Your task to perform on an android device: Go to notification settings Image 0: 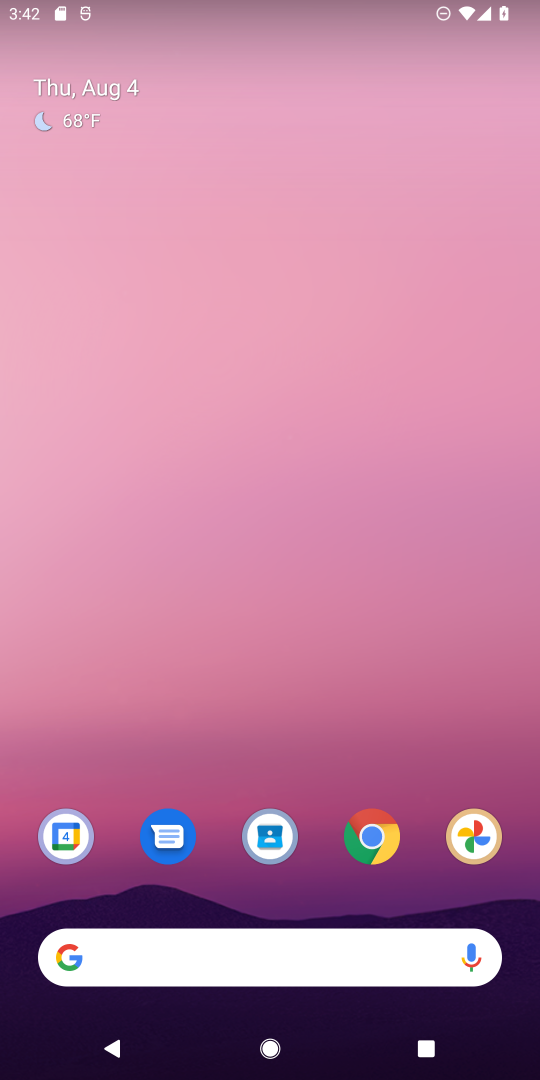
Step 0: drag from (283, 589) to (337, 3)
Your task to perform on an android device: Go to notification settings Image 1: 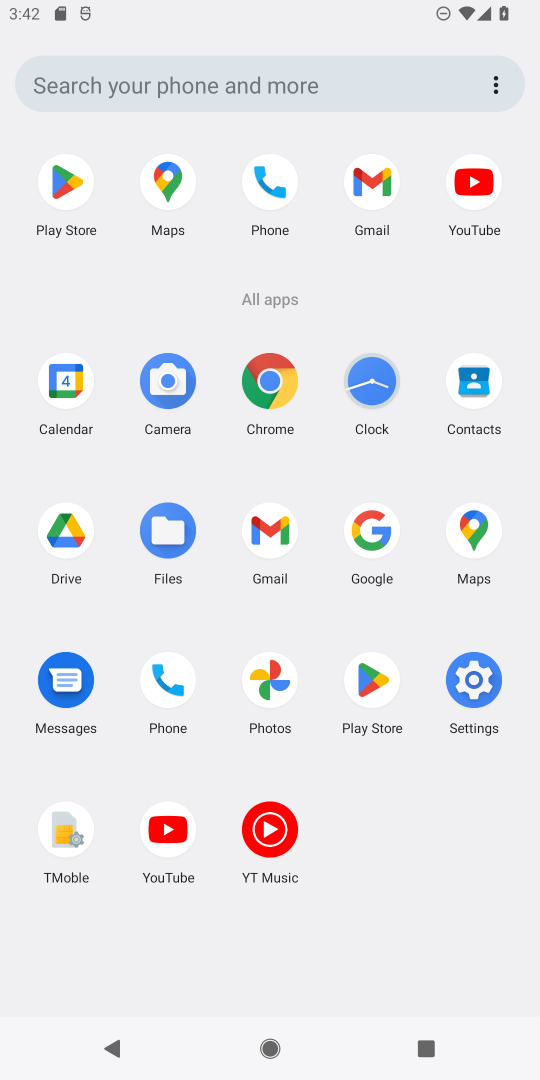
Step 1: click (461, 666)
Your task to perform on an android device: Go to notification settings Image 2: 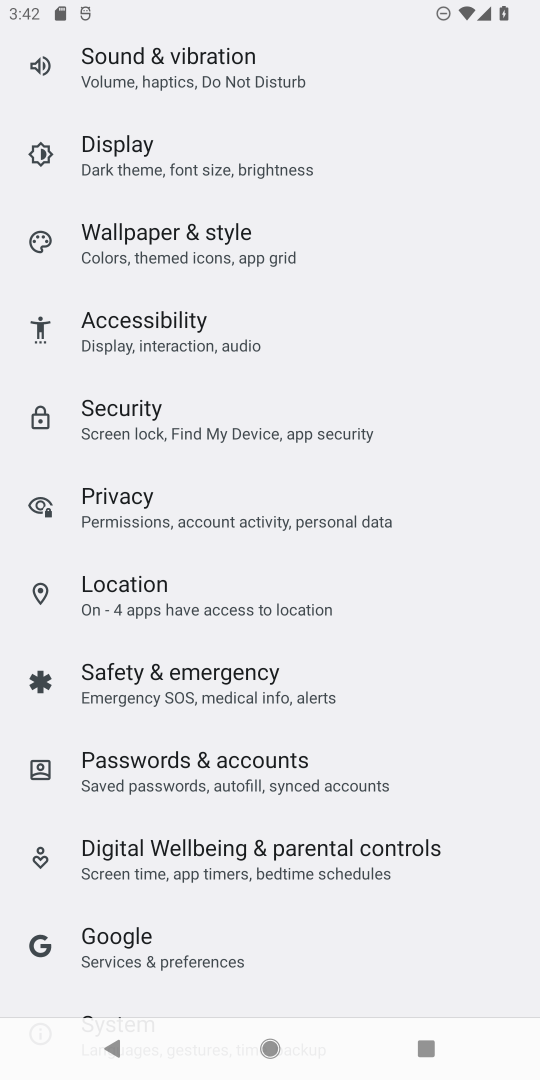
Step 2: drag from (423, 172) to (299, 1078)
Your task to perform on an android device: Go to notification settings Image 3: 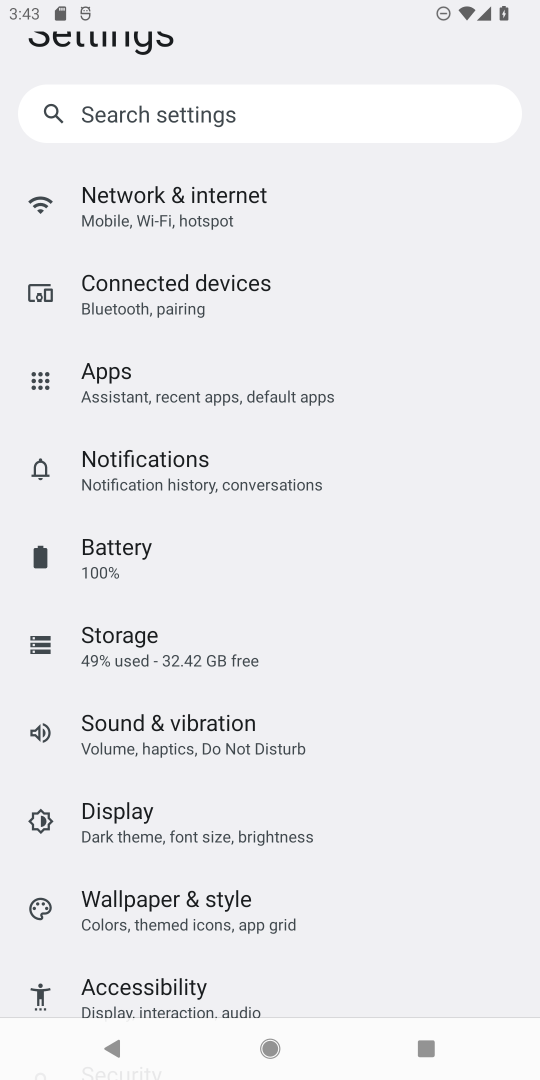
Step 3: click (186, 490)
Your task to perform on an android device: Go to notification settings Image 4: 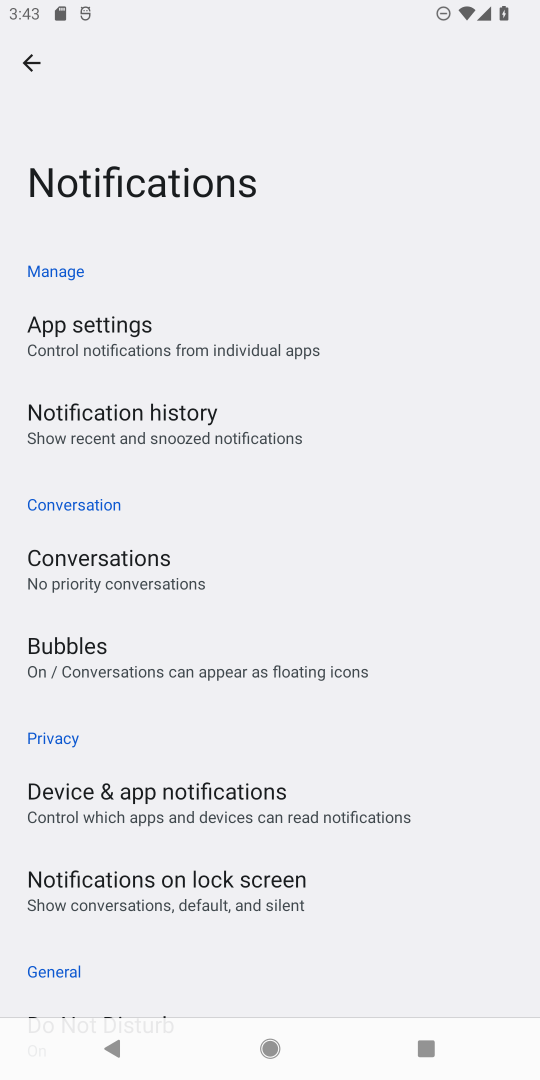
Step 4: task complete